Your task to perform on an android device: Show me recent news Image 0: 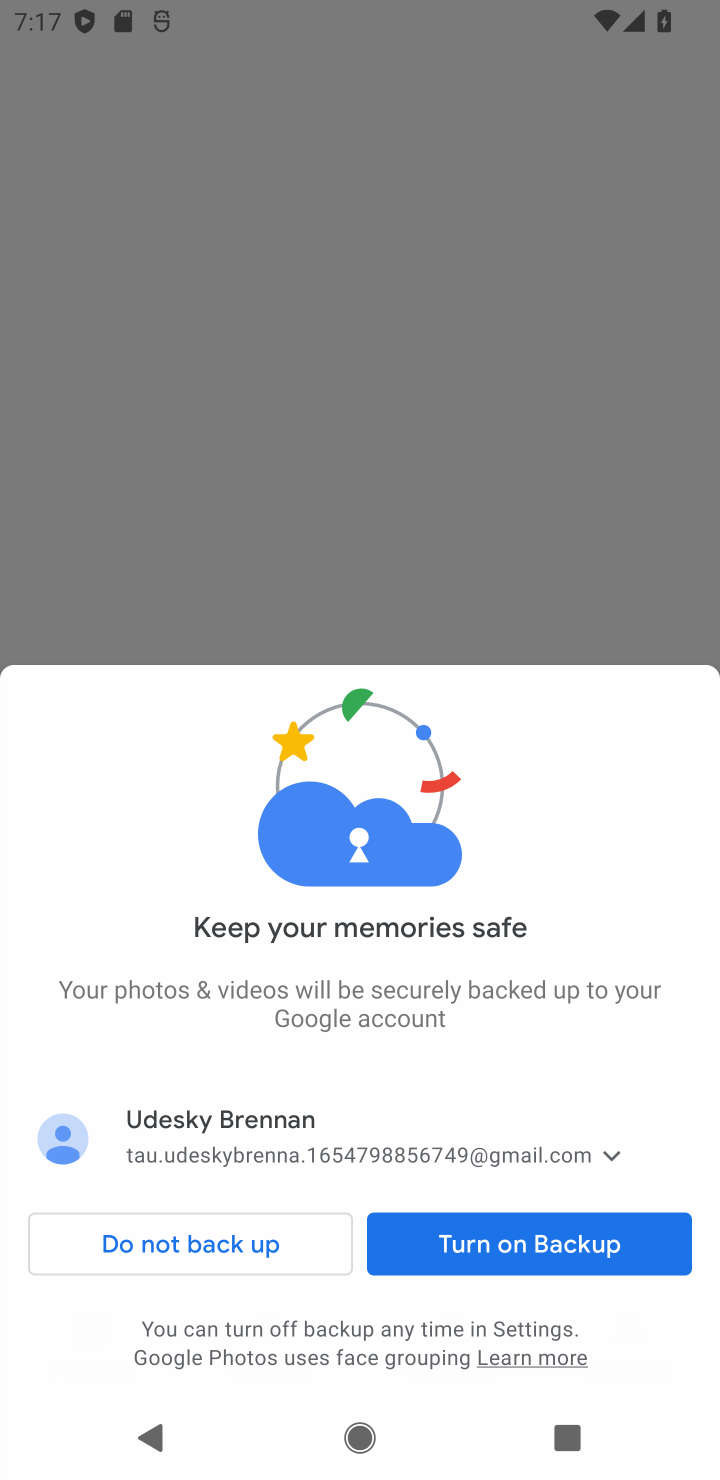
Step 0: press back button
Your task to perform on an android device: Show me recent news Image 1: 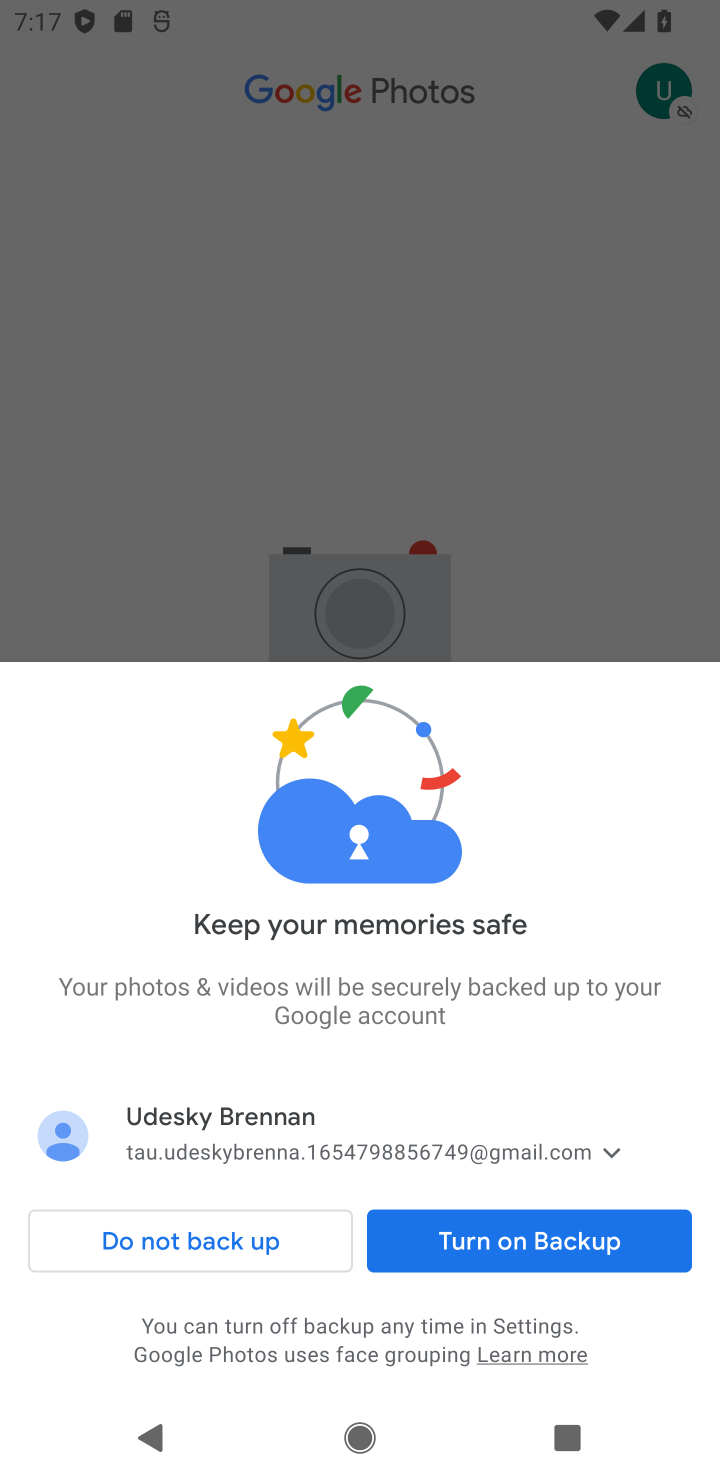
Step 1: press home button
Your task to perform on an android device: Show me recent news Image 2: 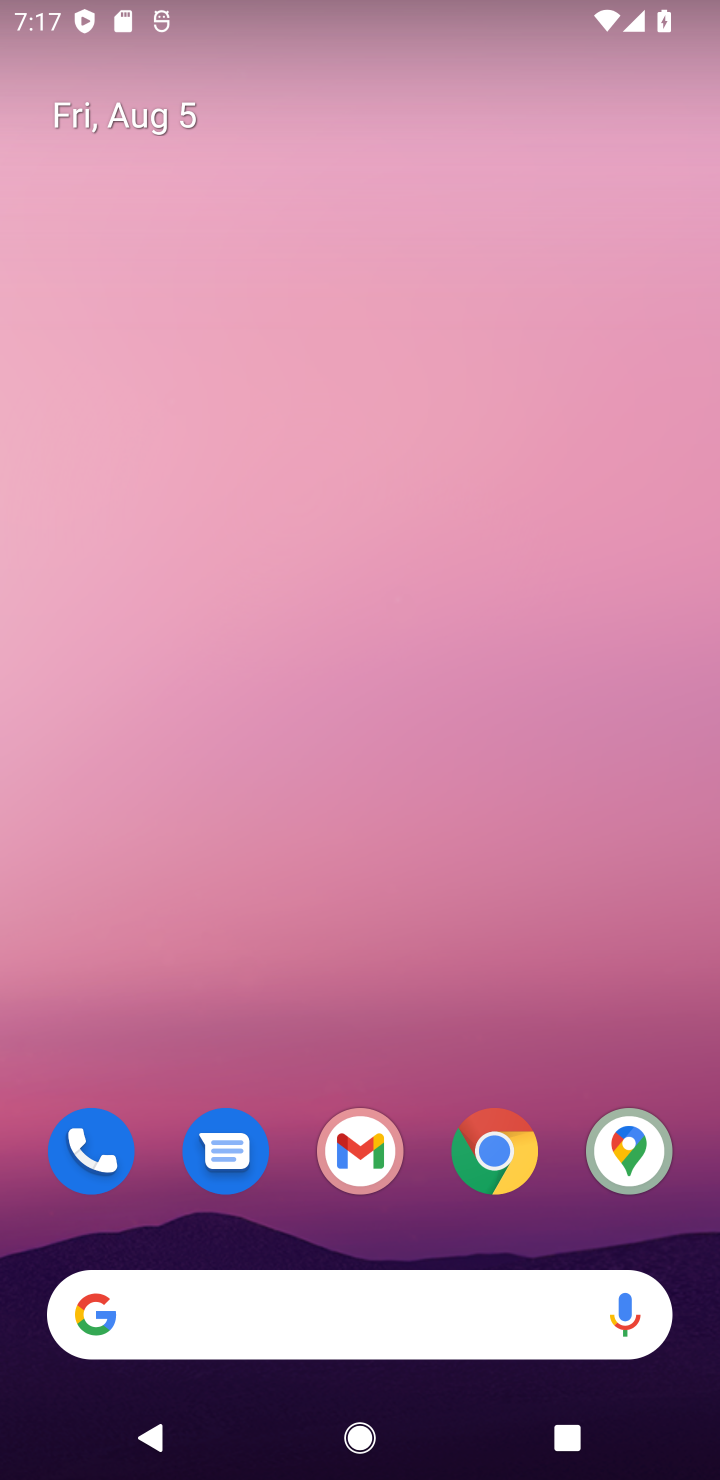
Step 2: click (300, 1309)
Your task to perform on an android device: Show me recent news Image 3: 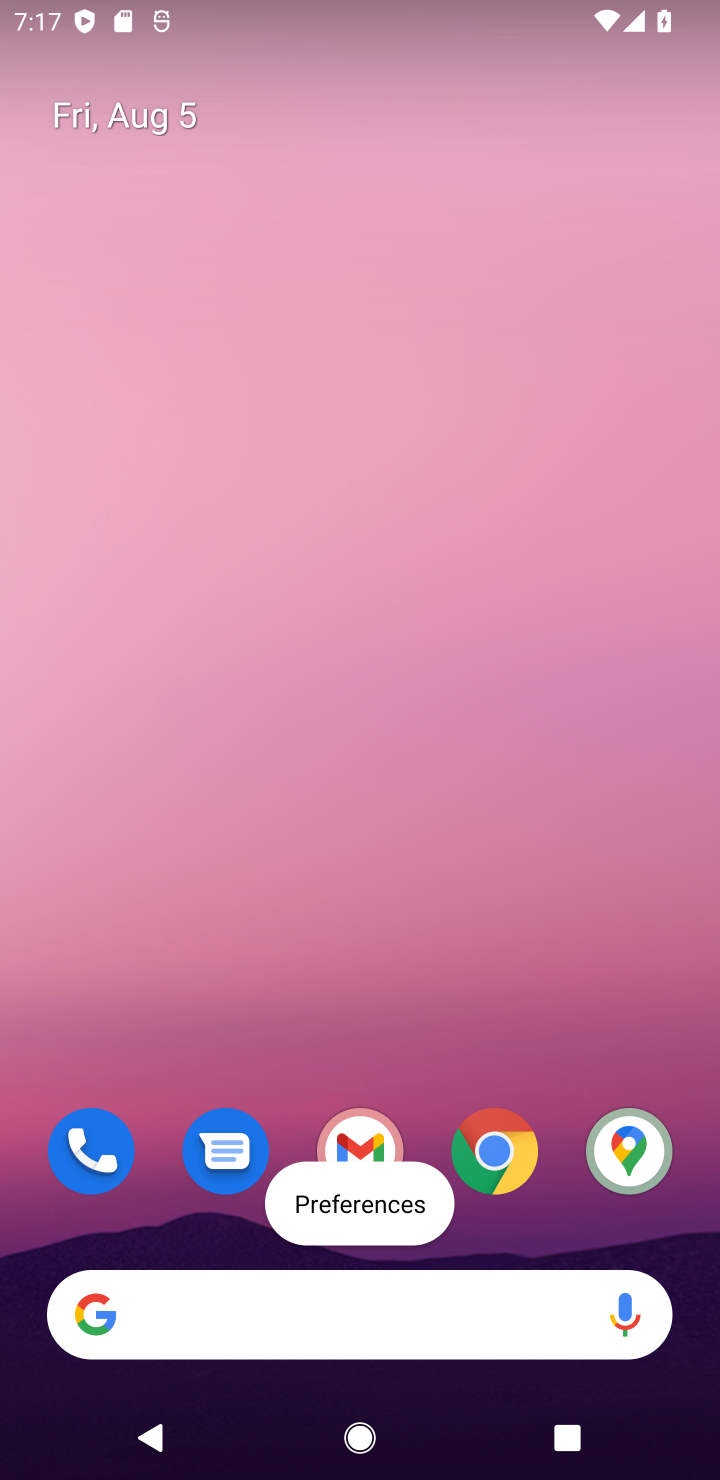
Step 3: click (312, 1296)
Your task to perform on an android device: Show me recent news Image 4: 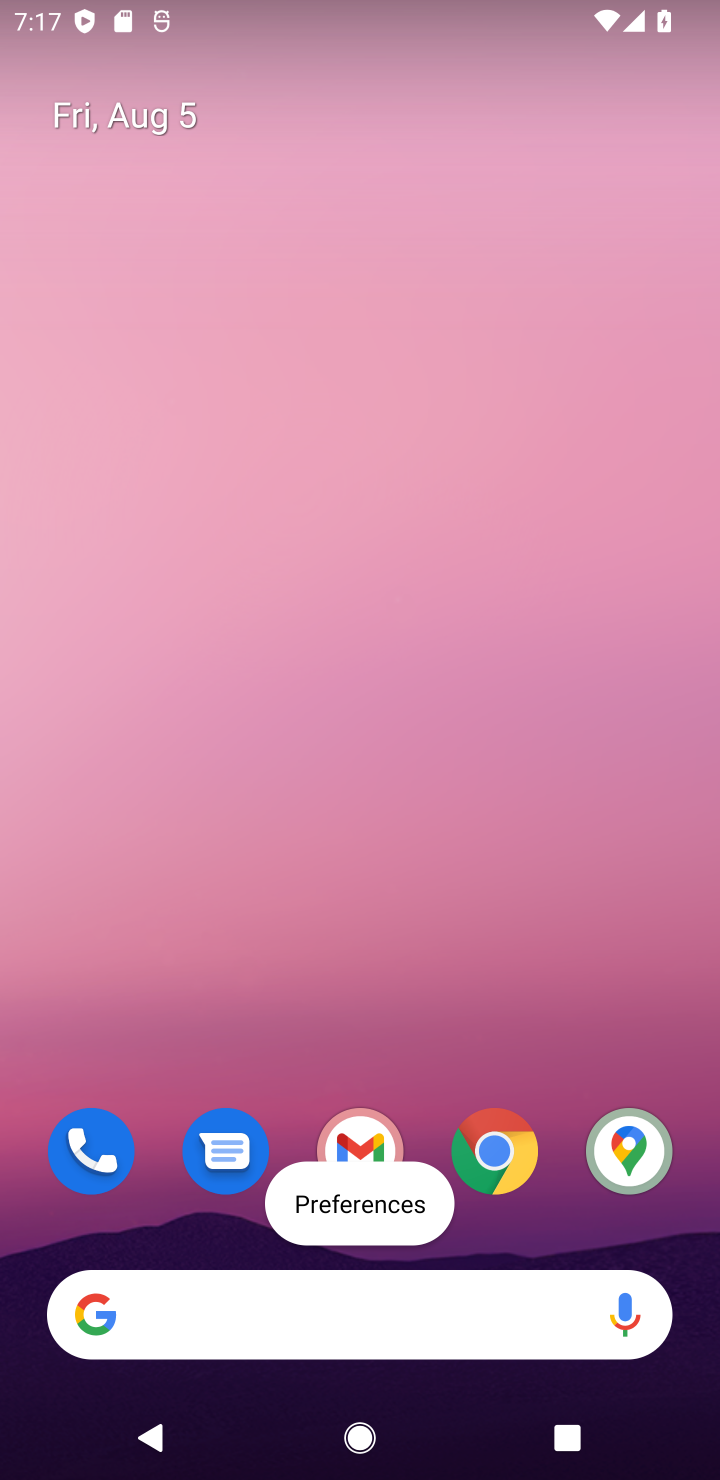
Step 4: click (314, 1291)
Your task to perform on an android device: Show me recent news Image 5: 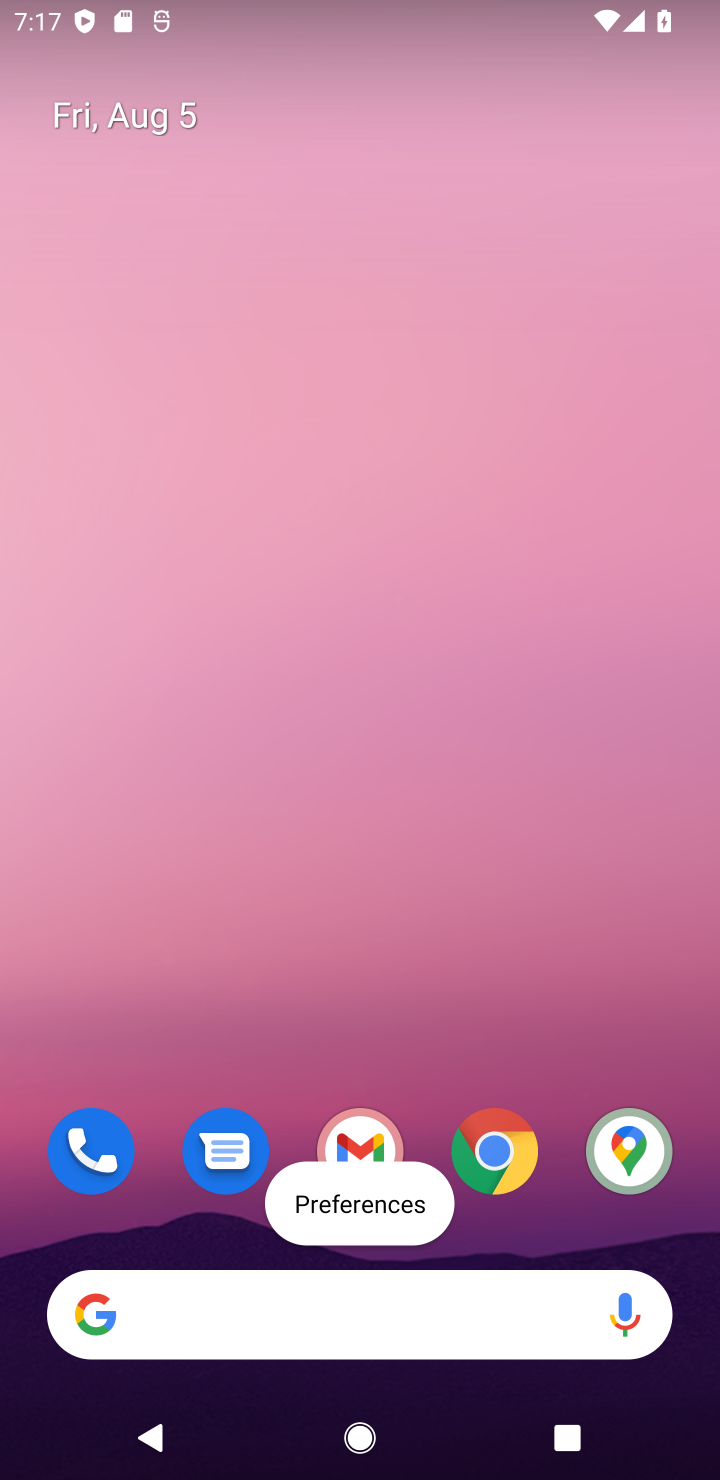
Step 5: click (317, 1290)
Your task to perform on an android device: Show me recent news Image 6: 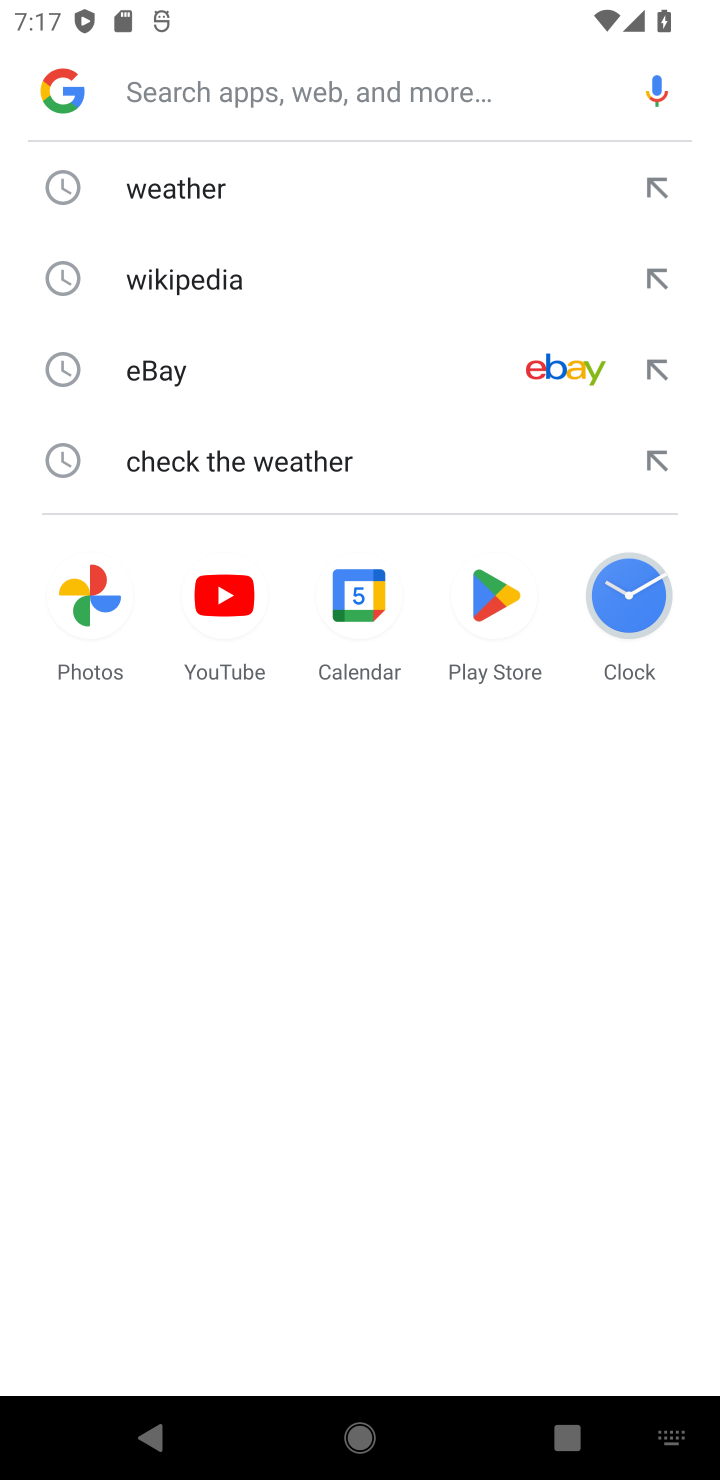
Step 6: type "recent news"
Your task to perform on an android device: Show me recent news Image 7: 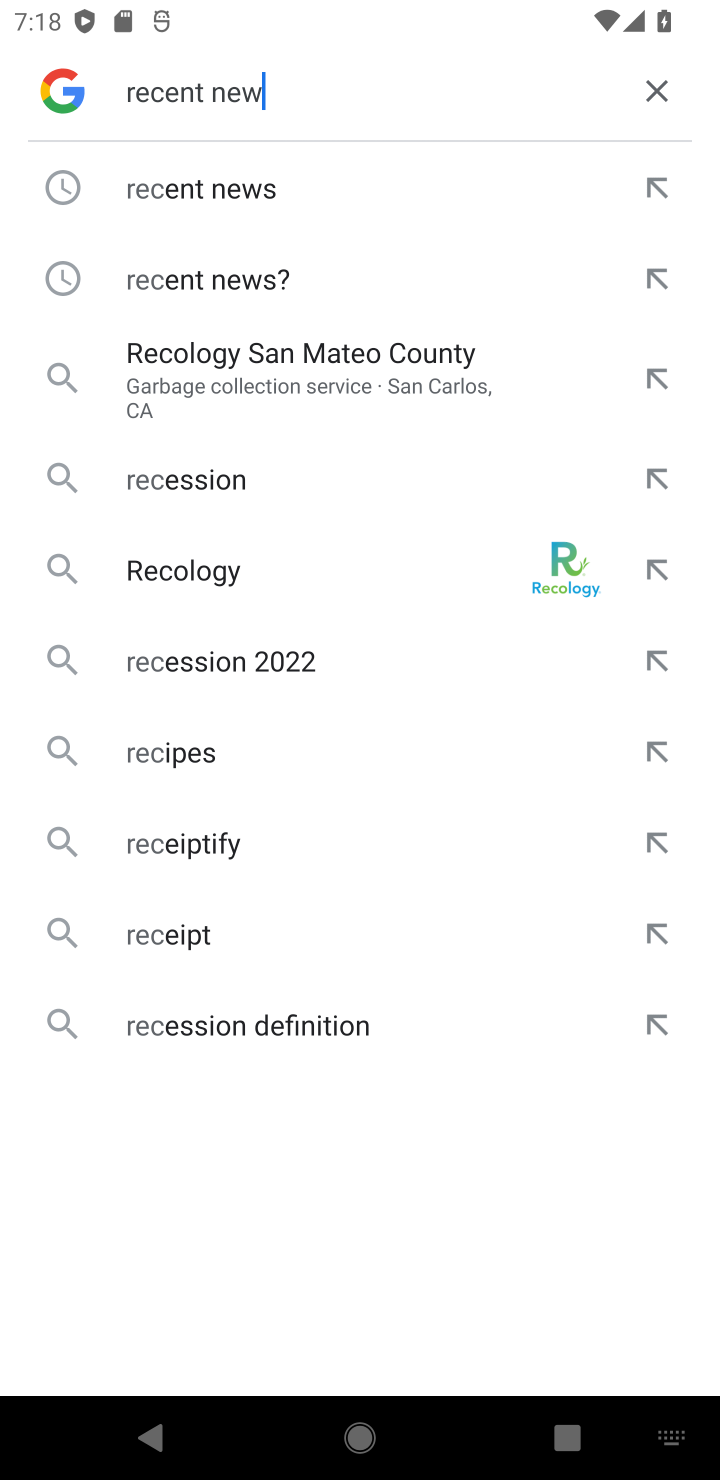
Step 7: type ""
Your task to perform on an android device: Show me recent news Image 8: 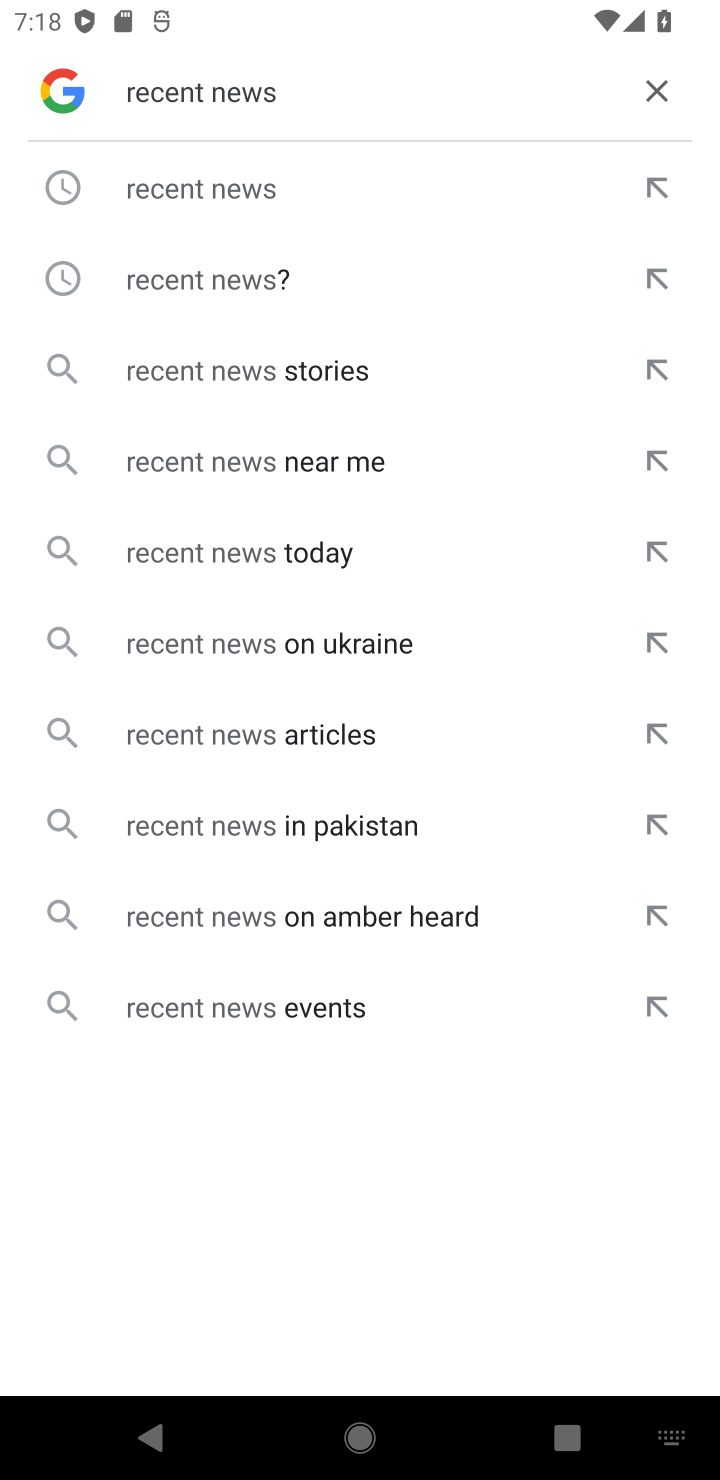
Step 8: click (321, 184)
Your task to perform on an android device: Show me recent news Image 9: 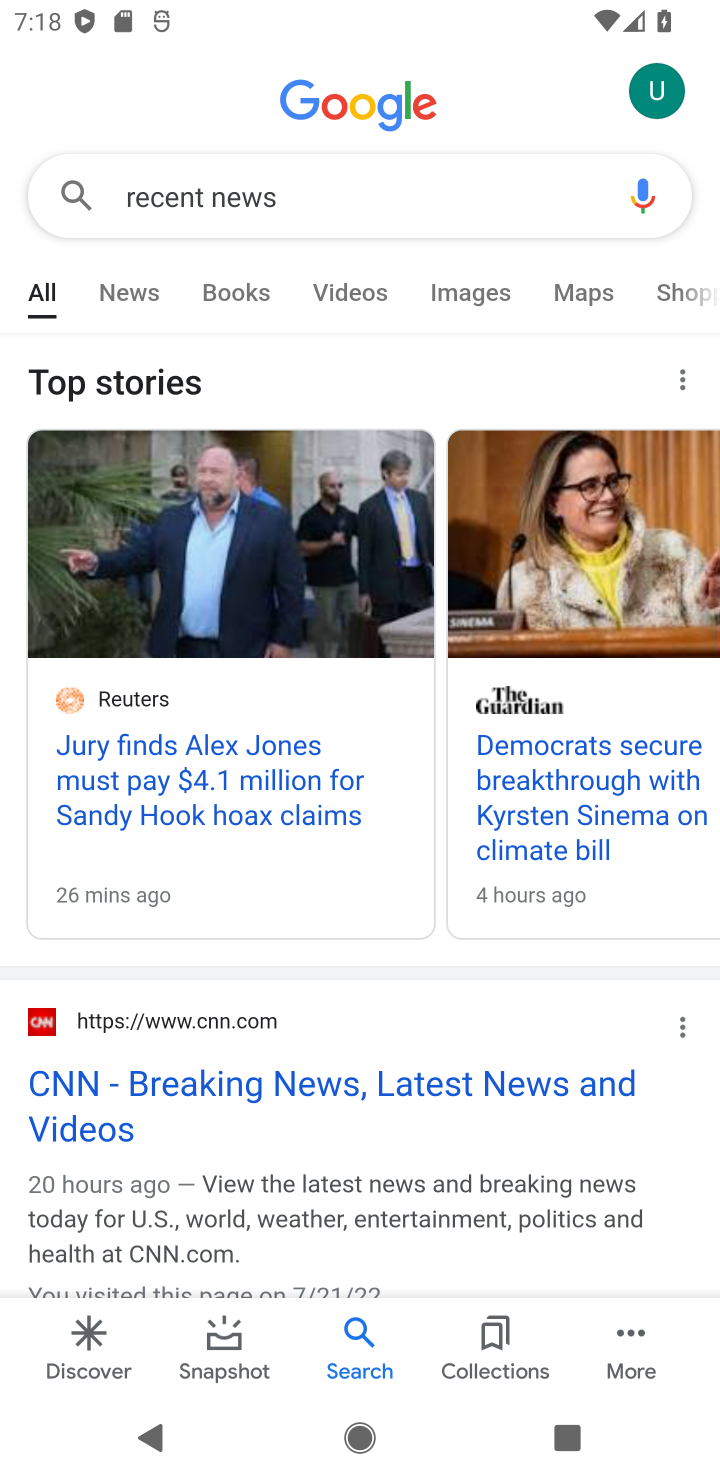
Step 9: task complete